Your task to perform on an android device: Search for a 100 ft extension cord Image 0: 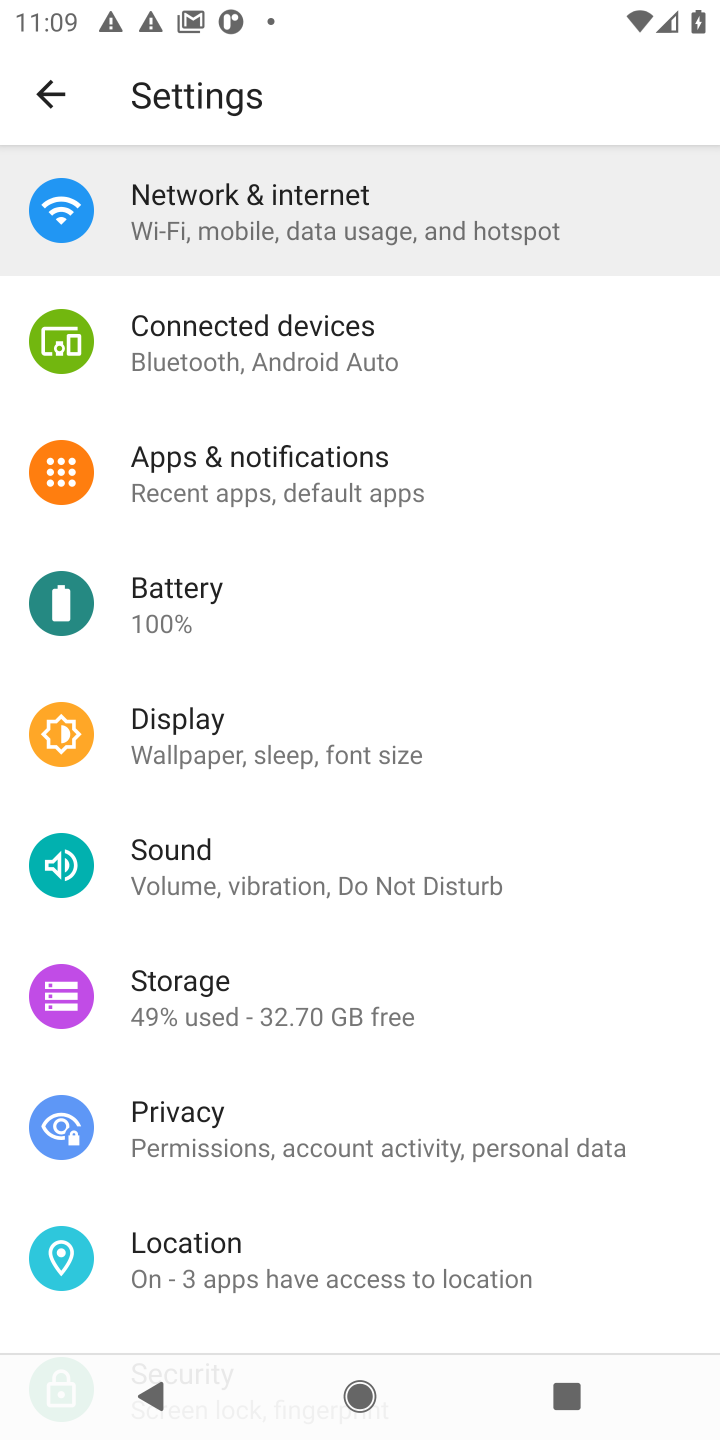
Step 0: press home button
Your task to perform on an android device: Search for a 100 ft extension cord Image 1: 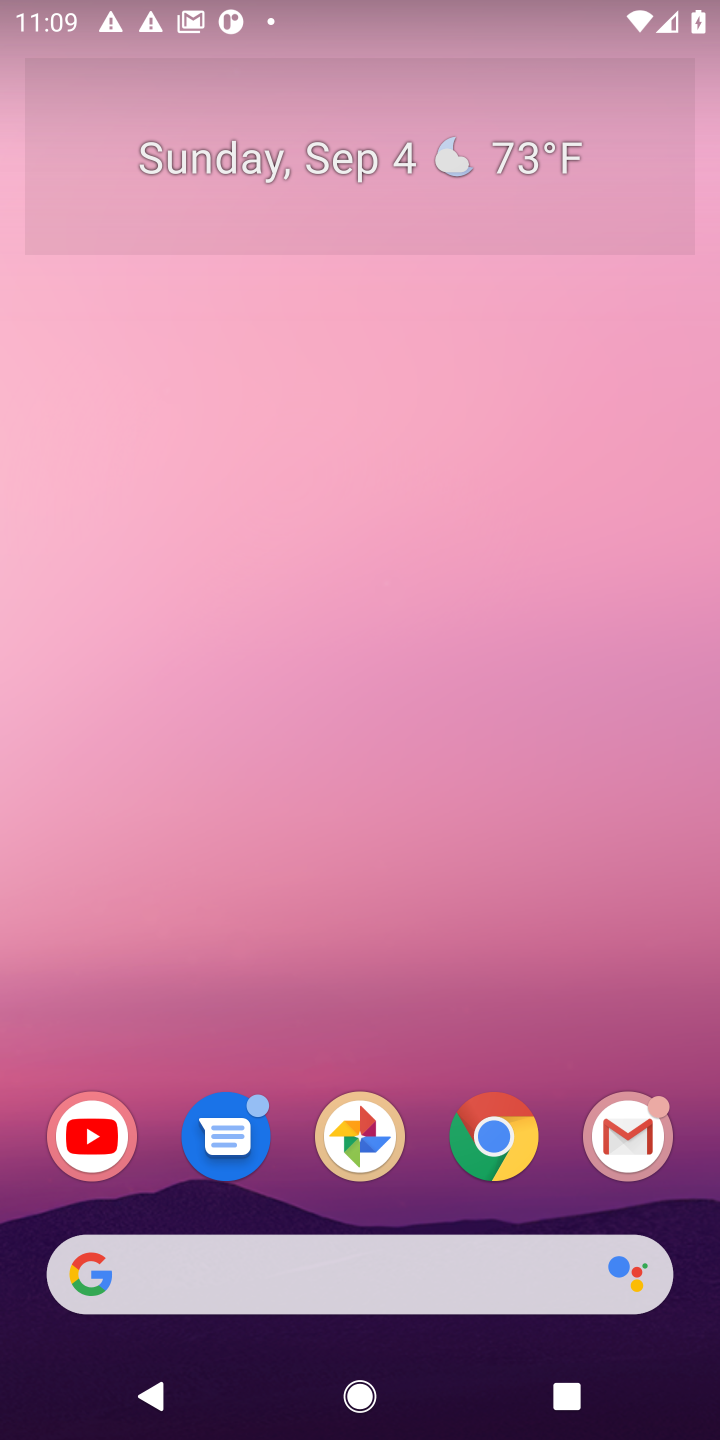
Step 1: click (498, 1140)
Your task to perform on an android device: Search for a 100 ft extension cord Image 2: 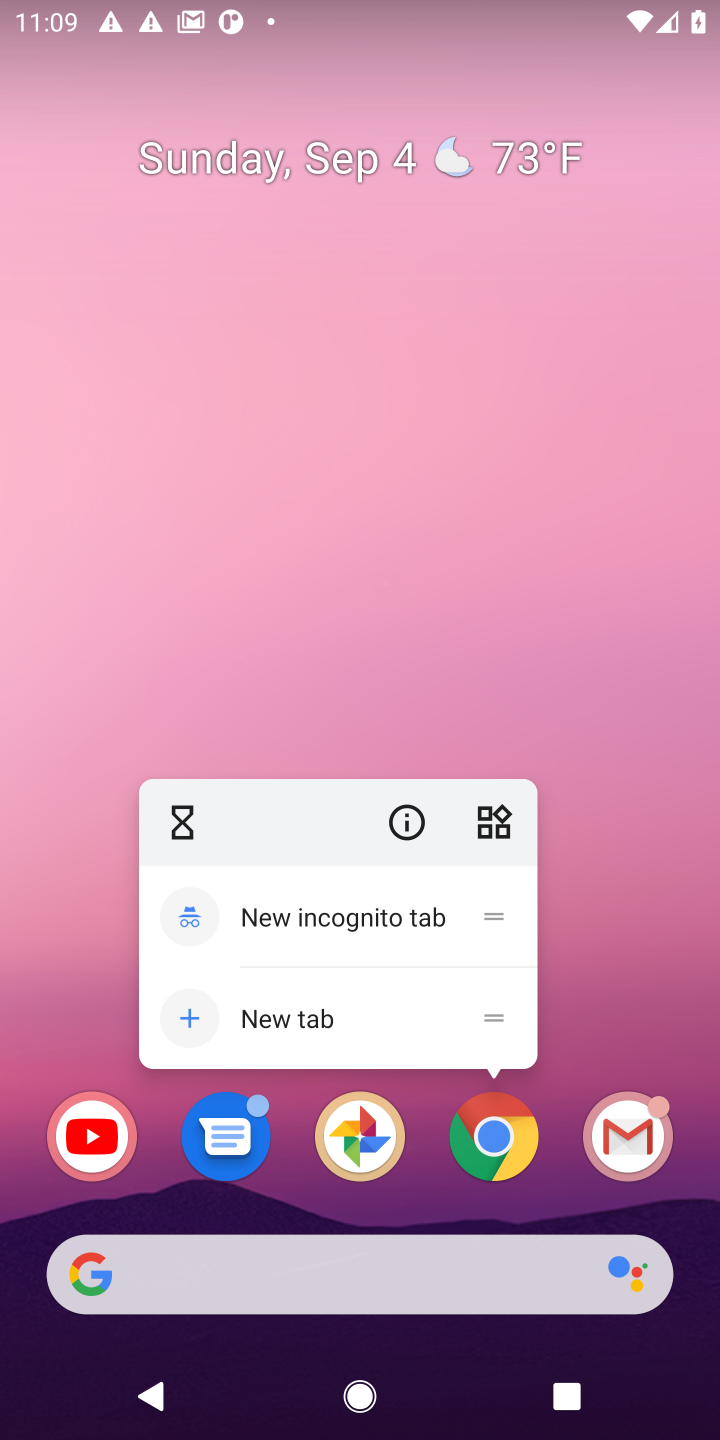
Step 2: click (498, 1144)
Your task to perform on an android device: Search for a 100 ft extension cord Image 3: 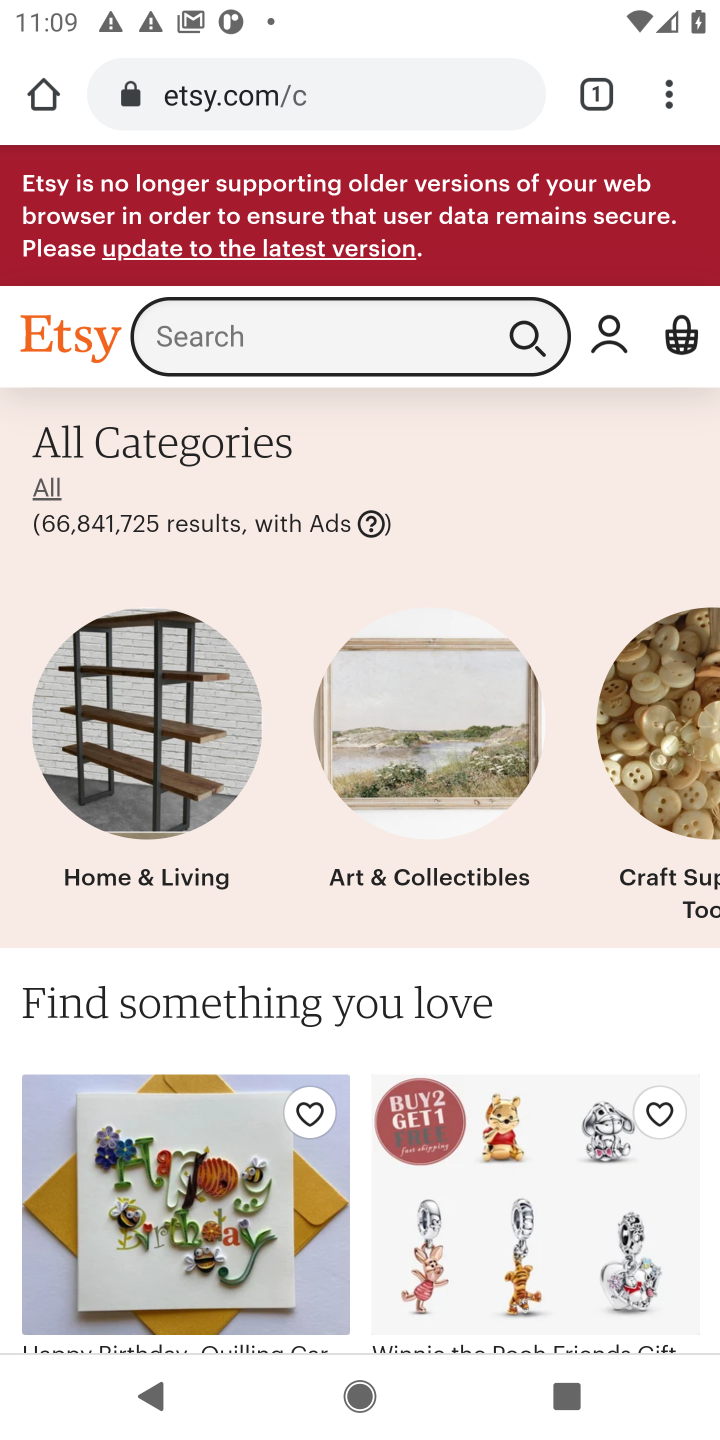
Step 3: click (377, 98)
Your task to perform on an android device: Search for a 100 ft extension cord Image 4: 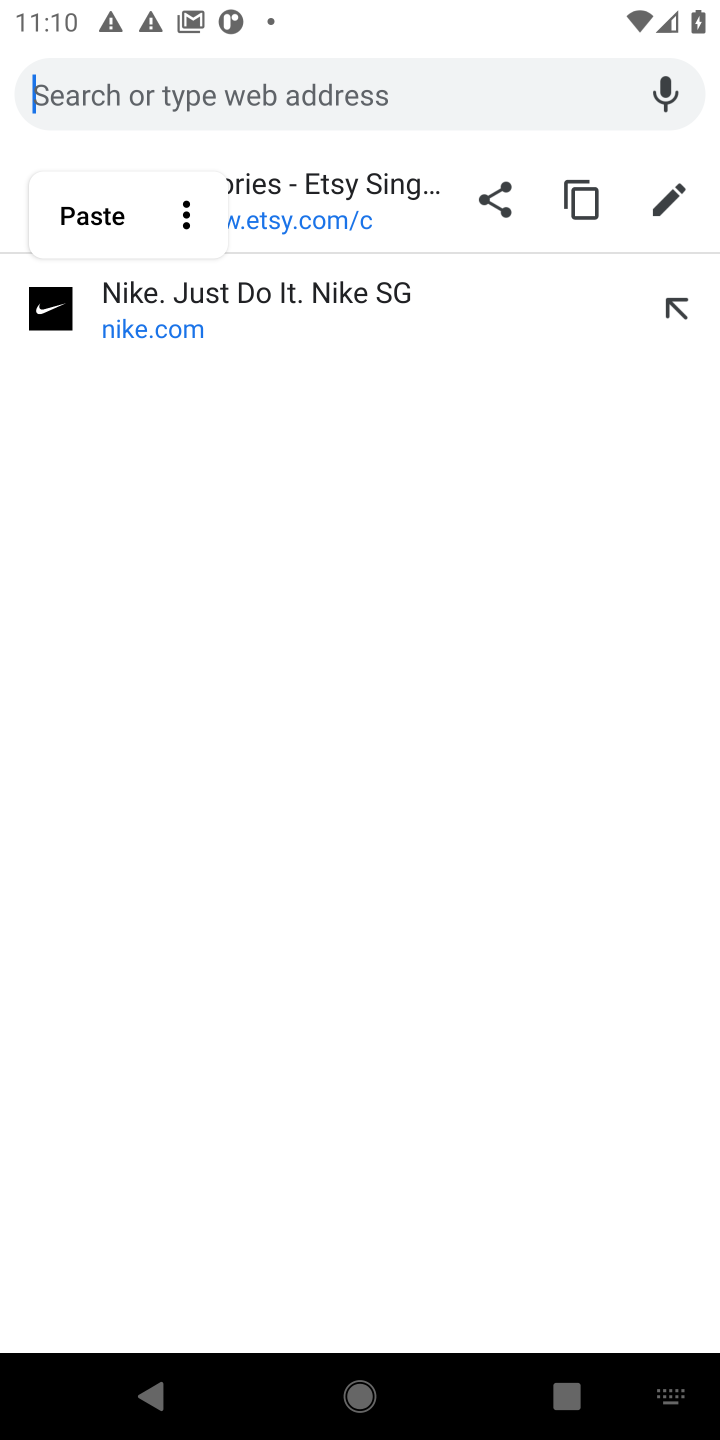
Step 4: type "100 ft extension cord"
Your task to perform on an android device: Search for a 100 ft extension cord Image 5: 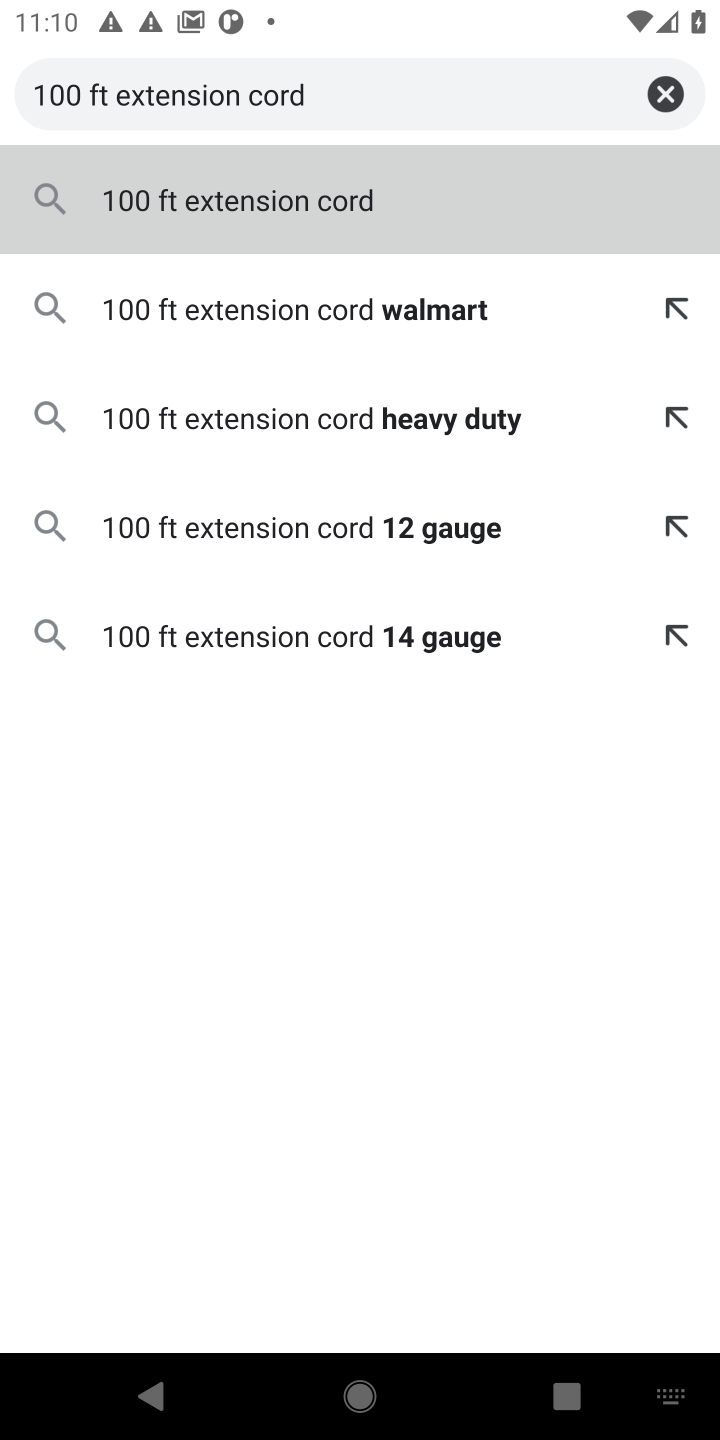
Step 5: press enter
Your task to perform on an android device: Search for a 100 ft extension cord Image 6: 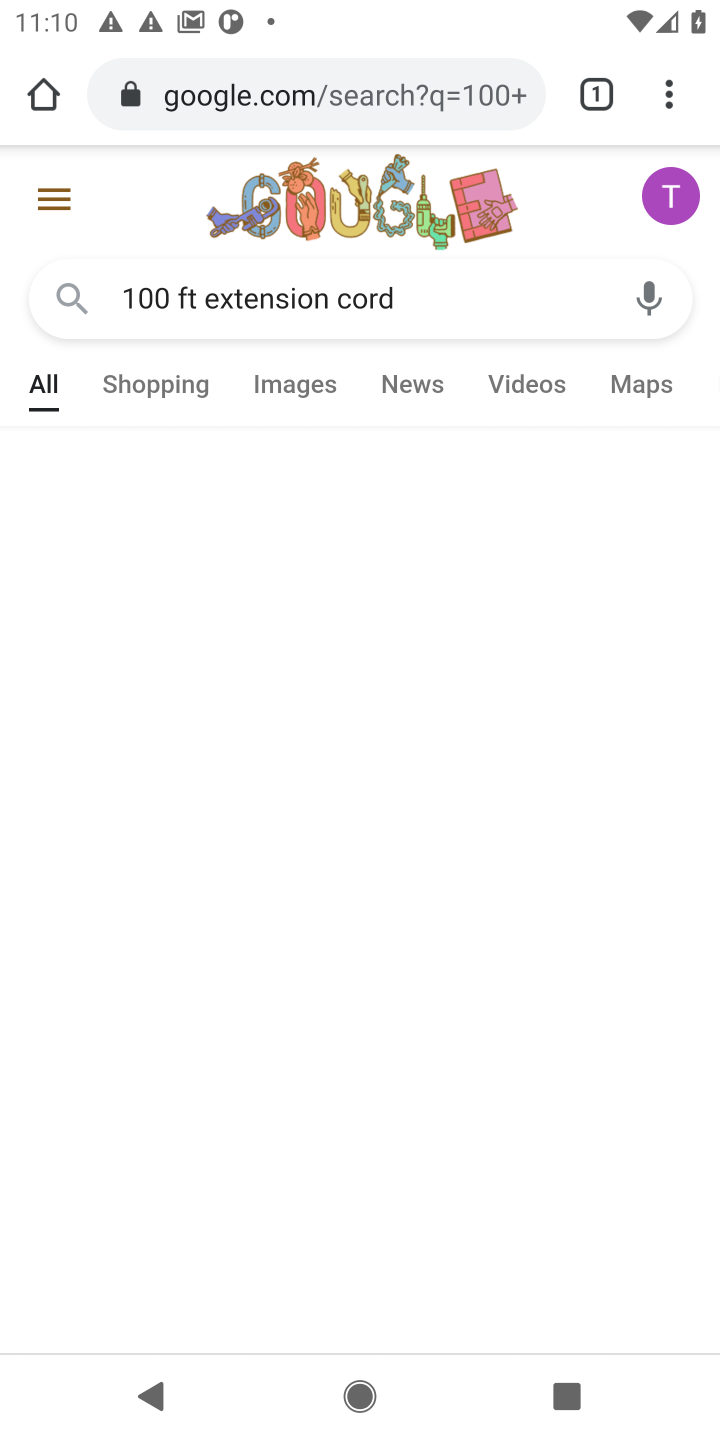
Step 6: click (324, 188)
Your task to perform on an android device: Search for a 100 ft extension cord Image 7: 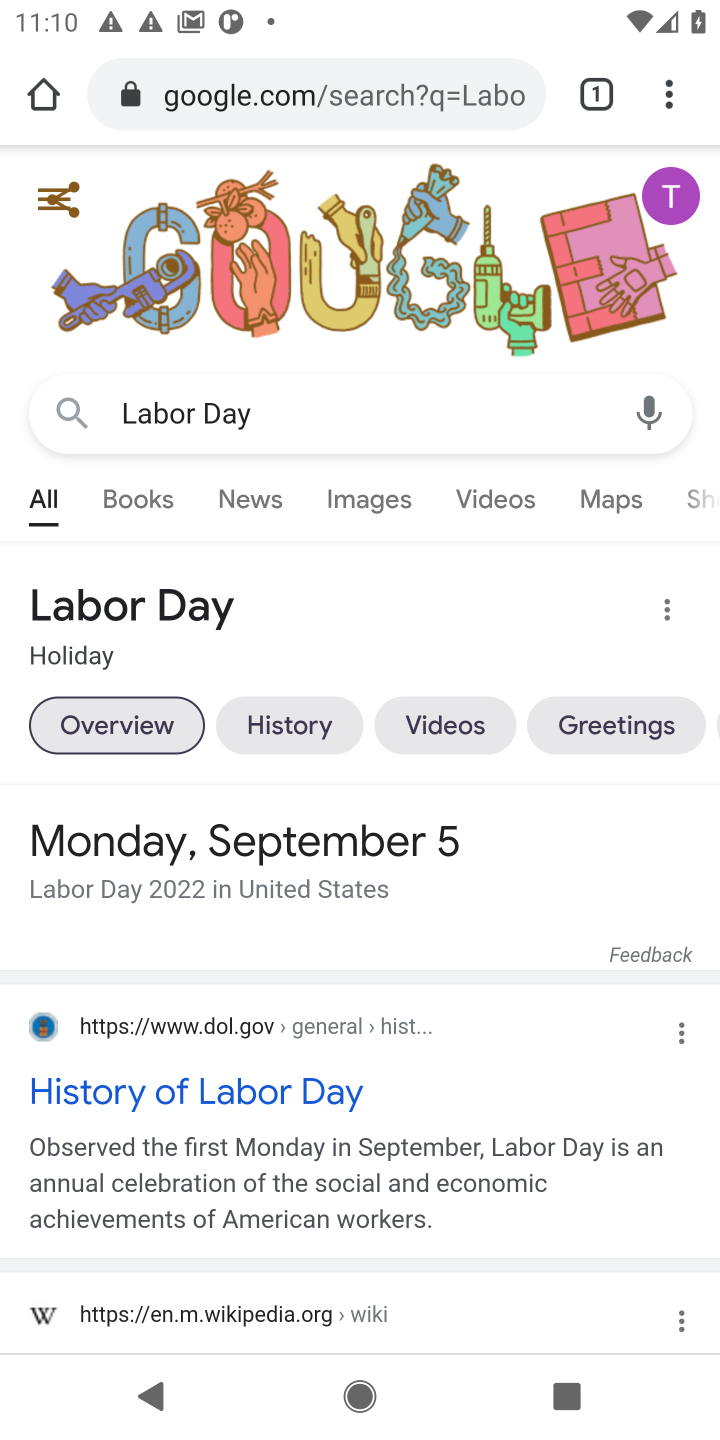
Step 7: drag from (473, 712) to (526, 537)
Your task to perform on an android device: Search for a 100 ft extension cord Image 8: 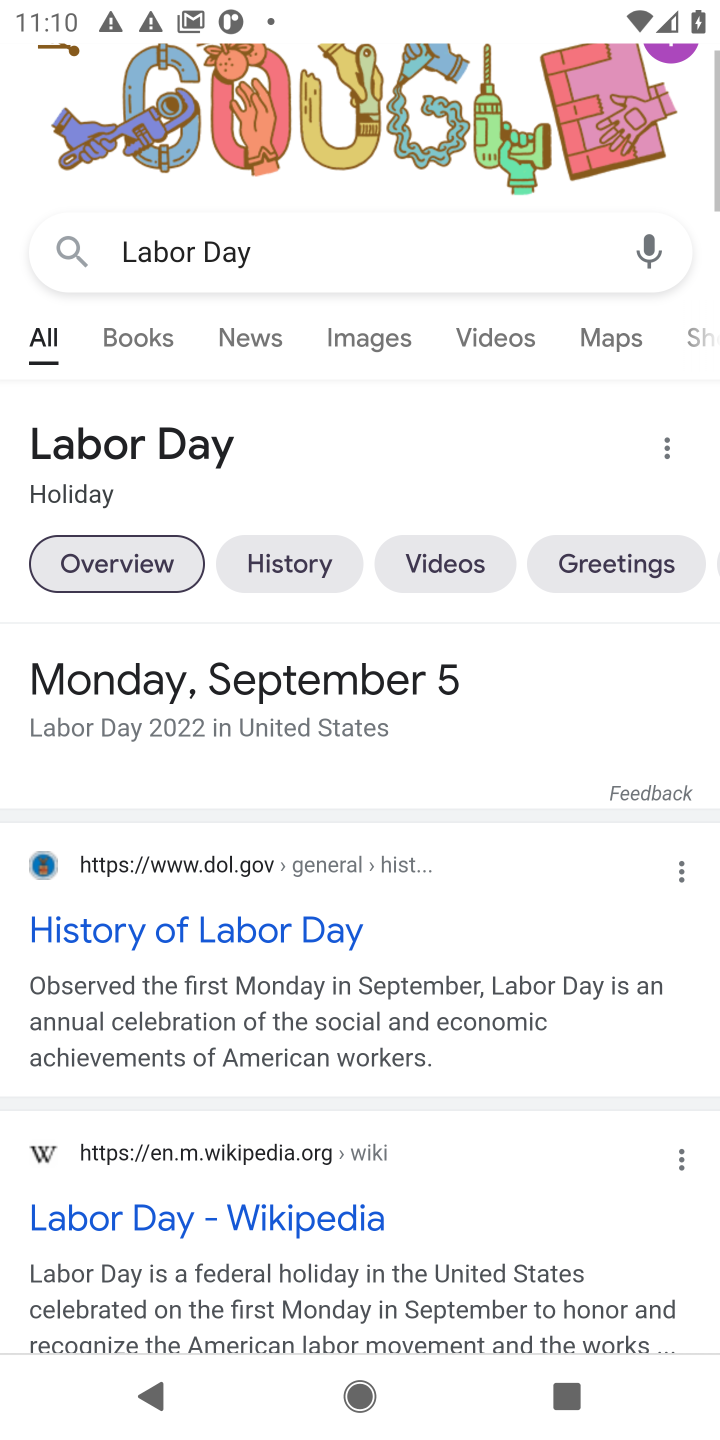
Step 8: press back button
Your task to perform on an android device: Search for a 100 ft extension cord Image 9: 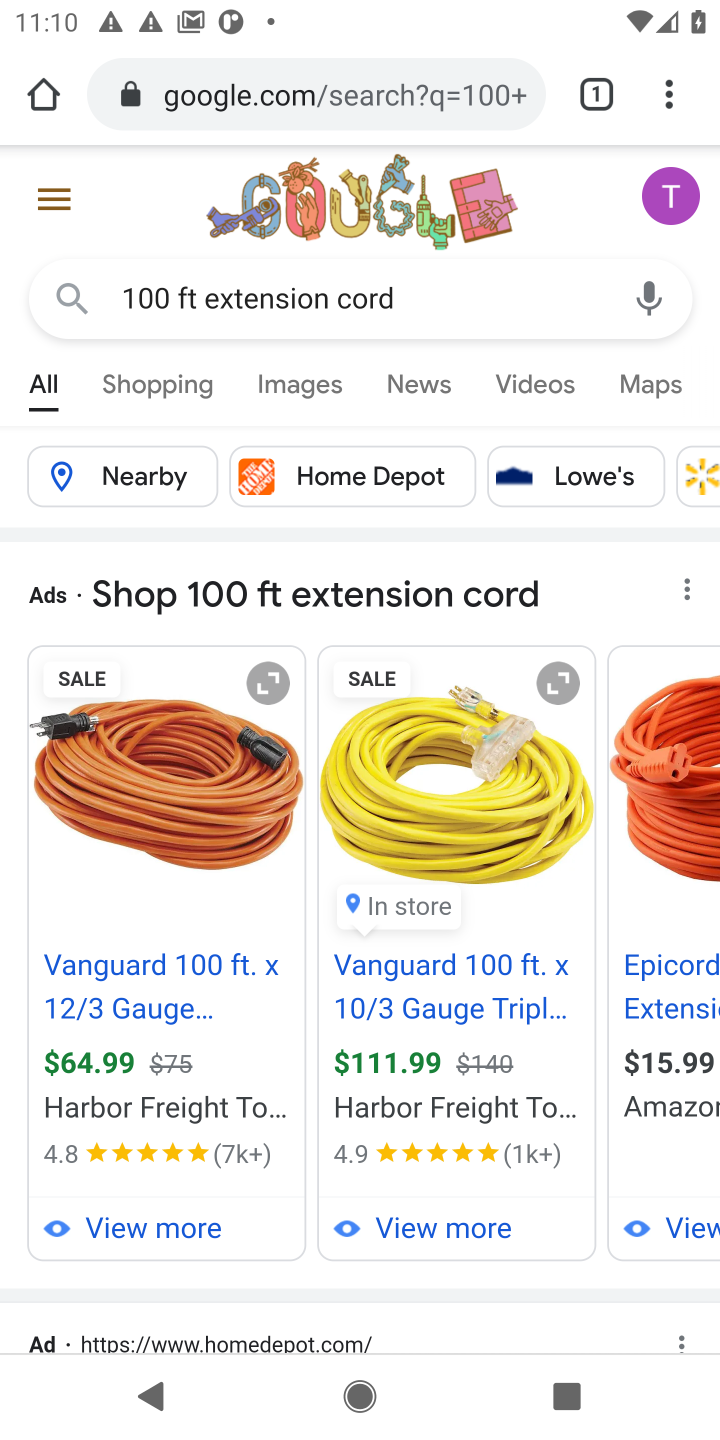
Step 9: drag from (444, 708) to (502, 480)
Your task to perform on an android device: Search for a 100 ft extension cord Image 10: 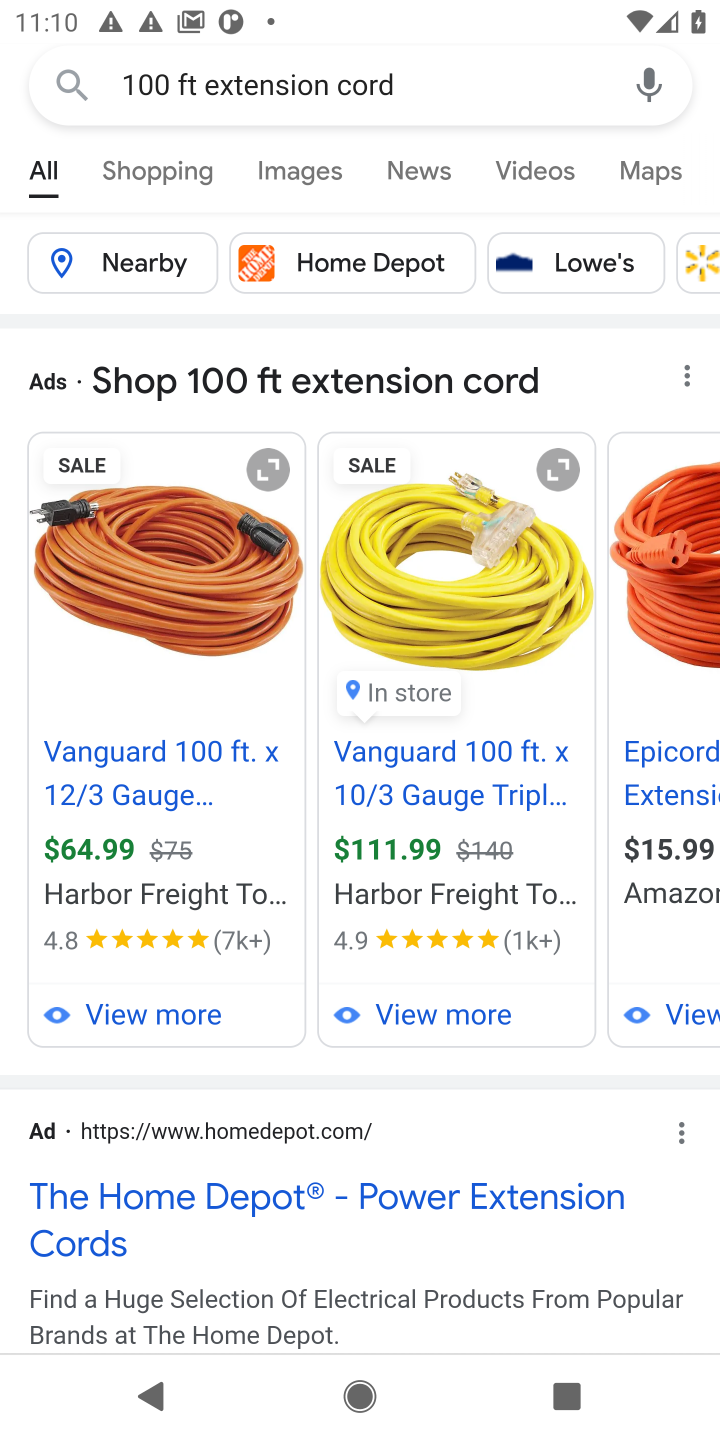
Step 10: drag from (300, 1170) to (431, 560)
Your task to perform on an android device: Search for a 100 ft extension cord Image 11: 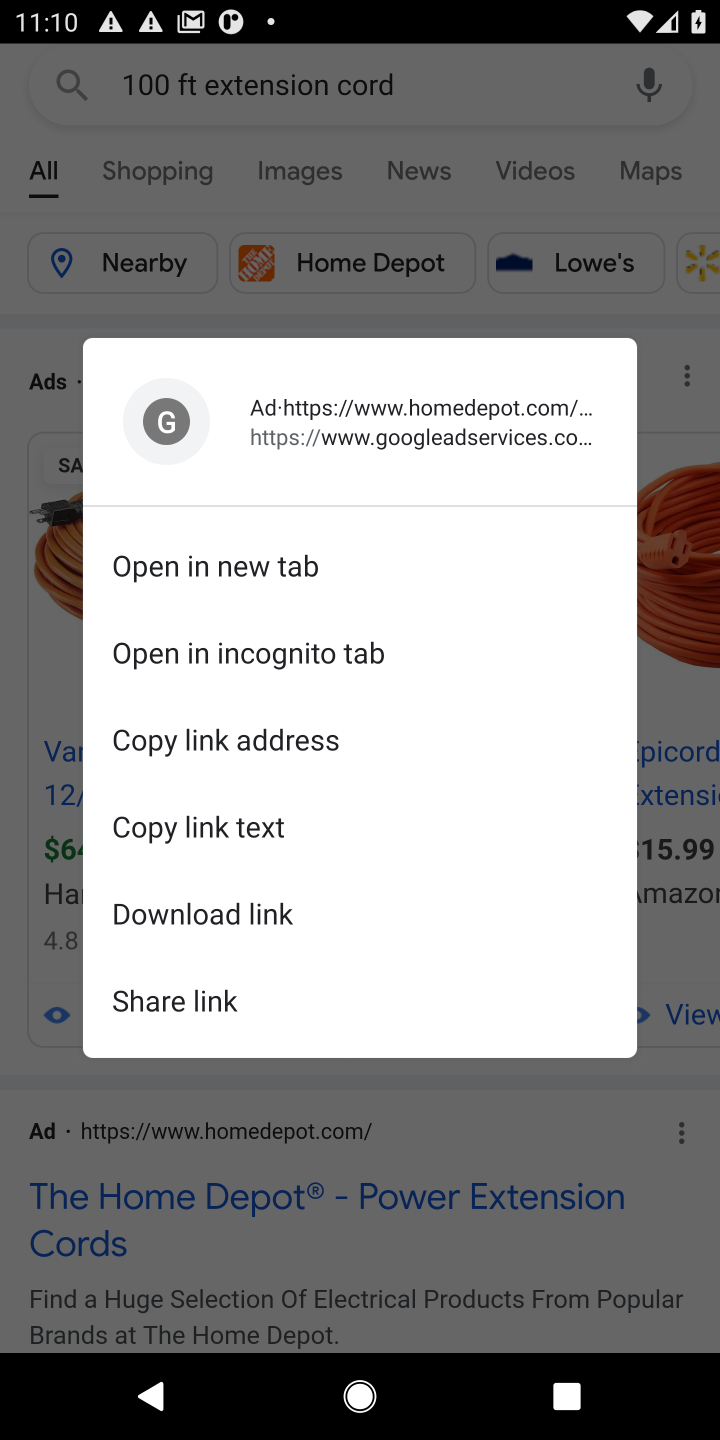
Step 11: click (660, 1131)
Your task to perform on an android device: Search for a 100 ft extension cord Image 12: 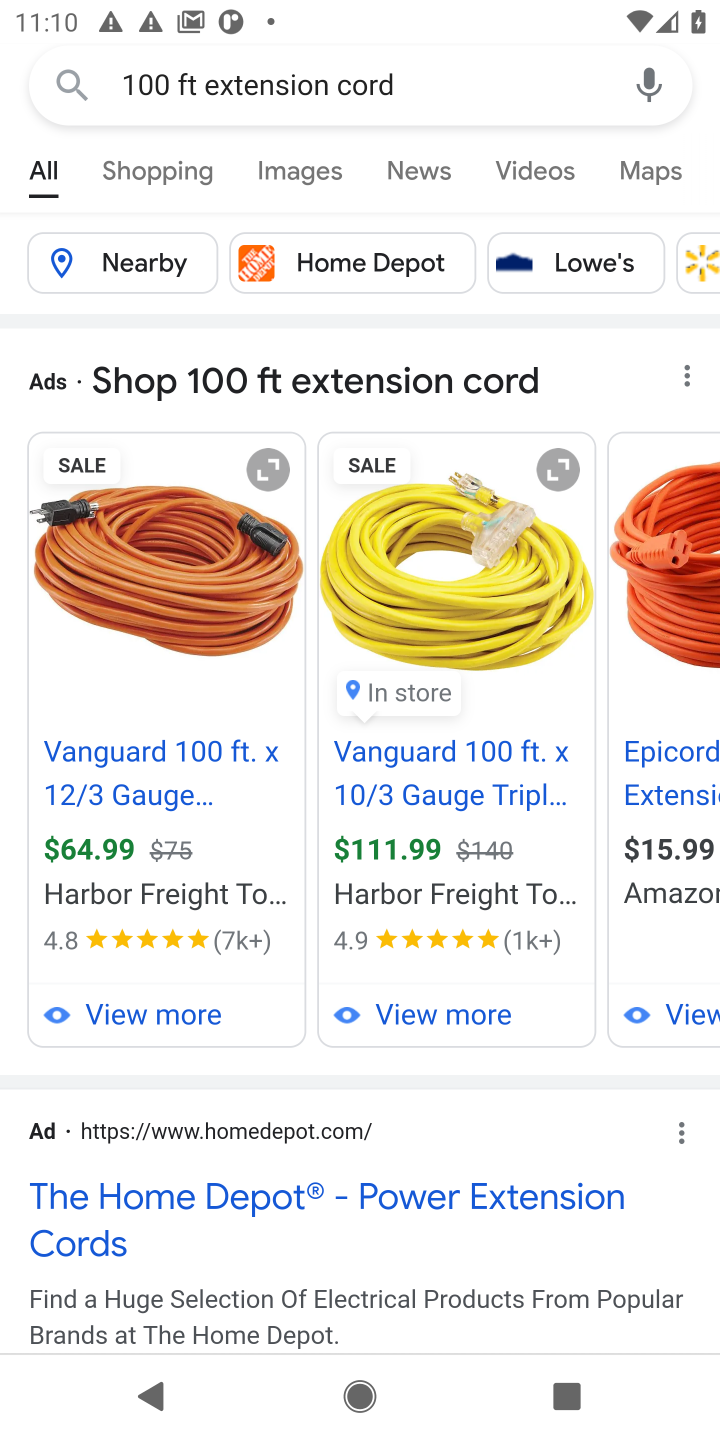
Step 12: task complete